Your task to perform on an android device: Search for pizza restaurants on Maps Image 0: 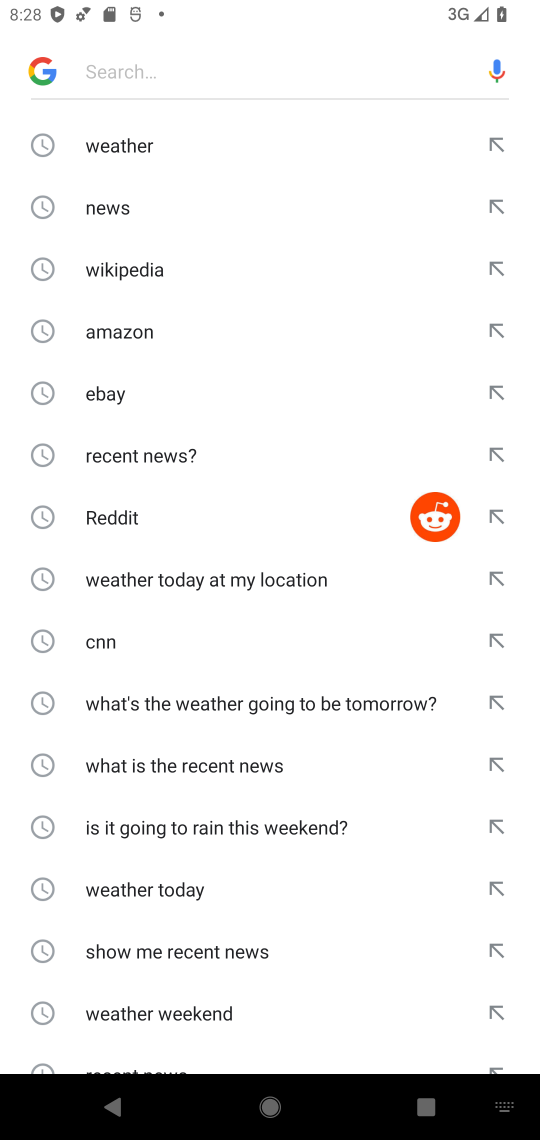
Step 0: press home button
Your task to perform on an android device: Search for pizza restaurants on Maps Image 1: 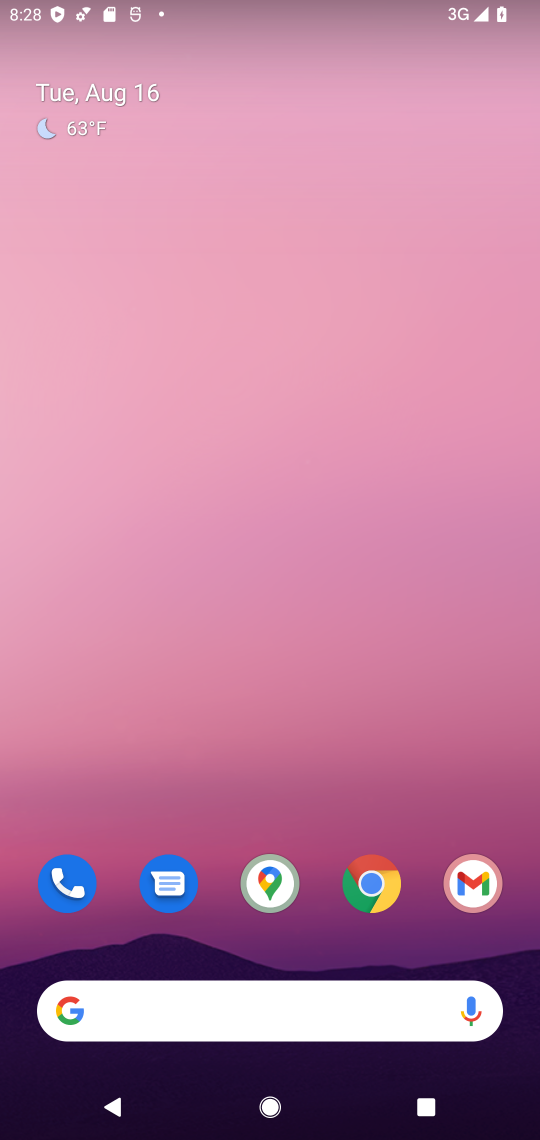
Step 1: click (282, 876)
Your task to perform on an android device: Search for pizza restaurants on Maps Image 2: 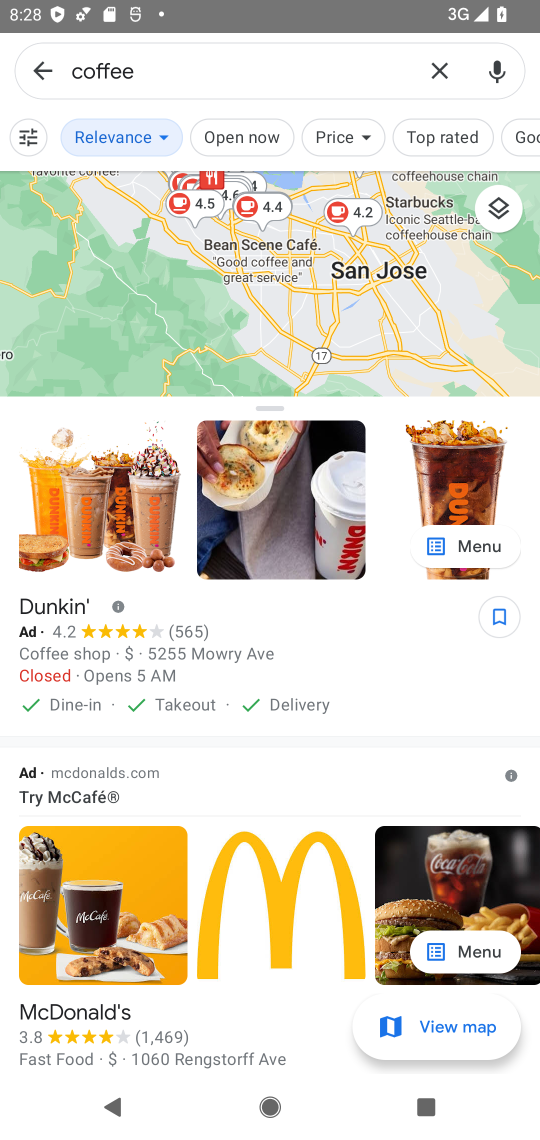
Step 2: click (441, 71)
Your task to perform on an android device: Search for pizza restaurants on Maps Image 3: 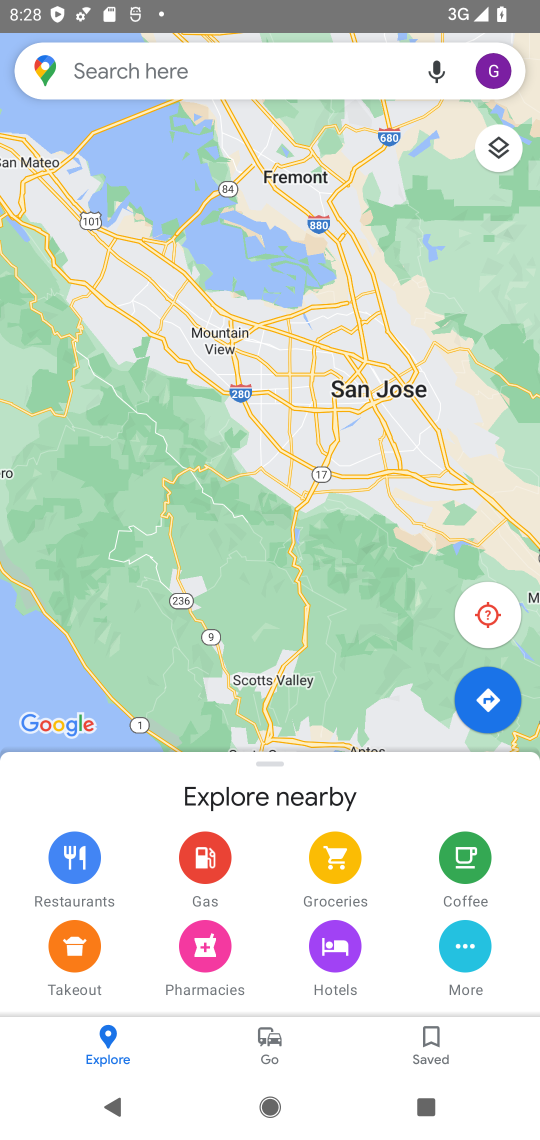
Step 3: click (278, 75)
Your task to perform on an android device: Search for pizza restaurants on Maps Image 4: 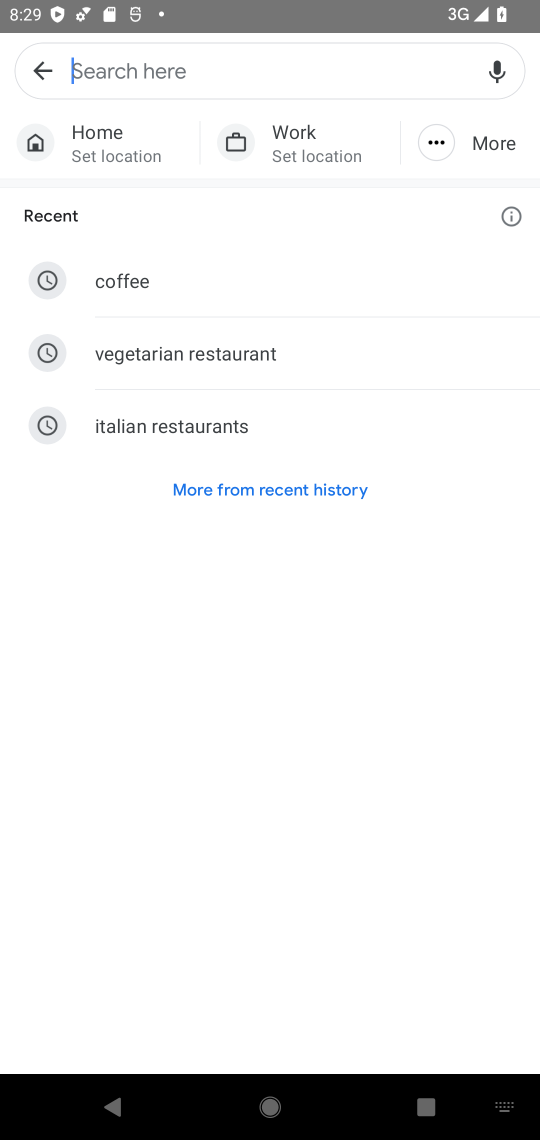
Step 4: type "pizza restaurant"
Your task to perform on an android device: Search for pizza restaurants on Maps Image 5: 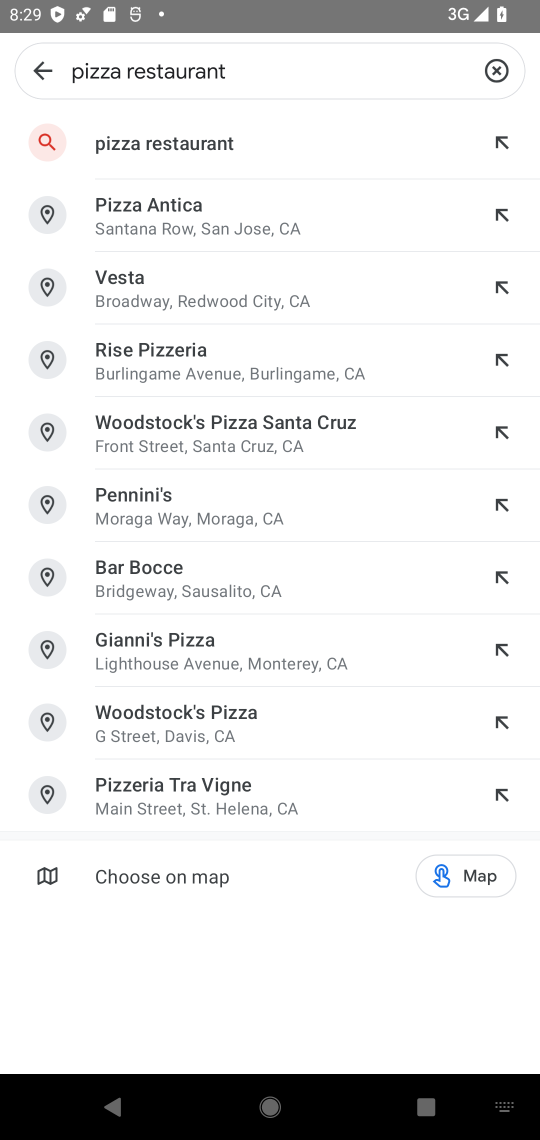
Step 5: click (127, 133)
Your task to perform on an android device: Search for pizza restaurants on Maps Image 6: 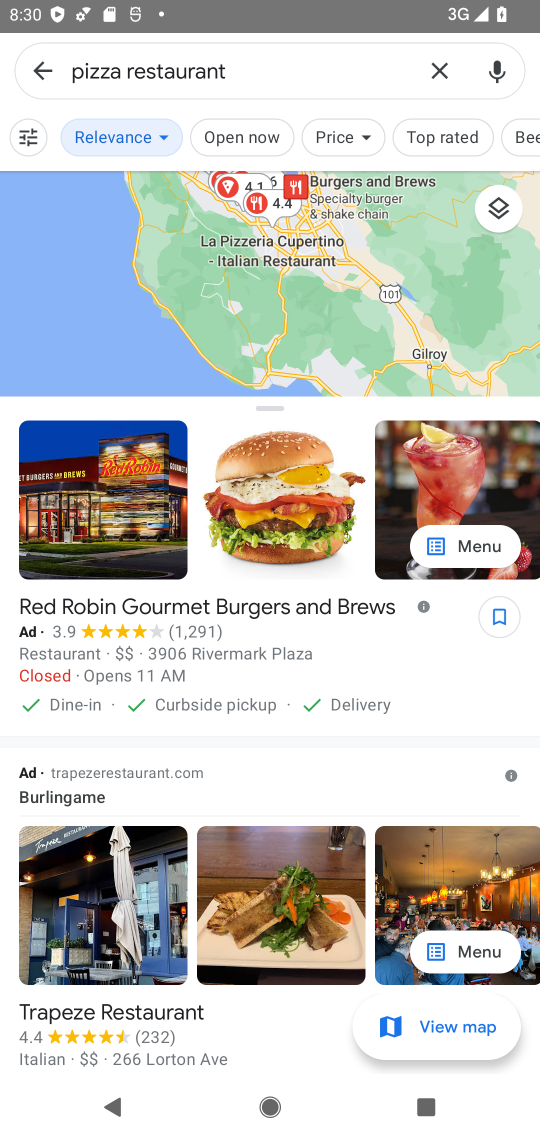
Step 6: task complete